Your task to perform on an android device: install app "Facebook Messenger" Image 0: 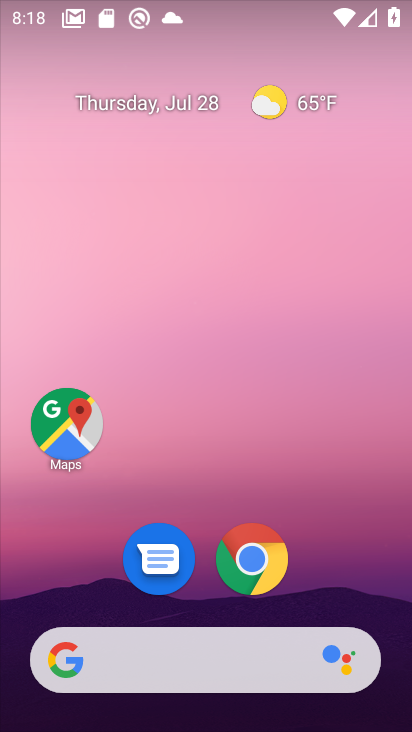
Step 0: drag from (204, 584) to (201, 264)
Your task to perform on an android device: install app "Facebook Messenger" Image 1: 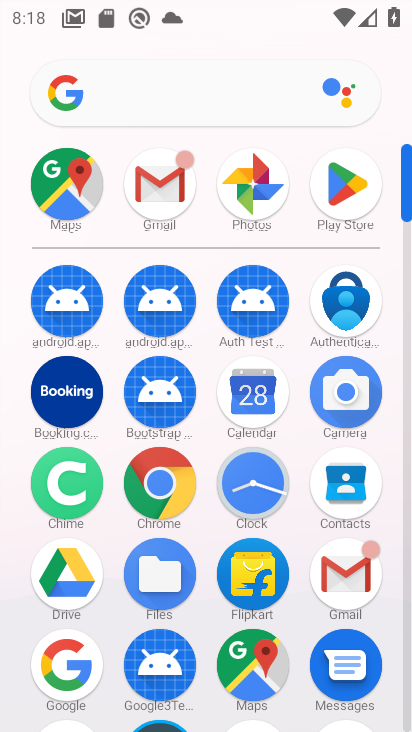
Step 1: click (346, 184)
Your task to perform on an android device: install app "Facebook Messenger" Image 2: 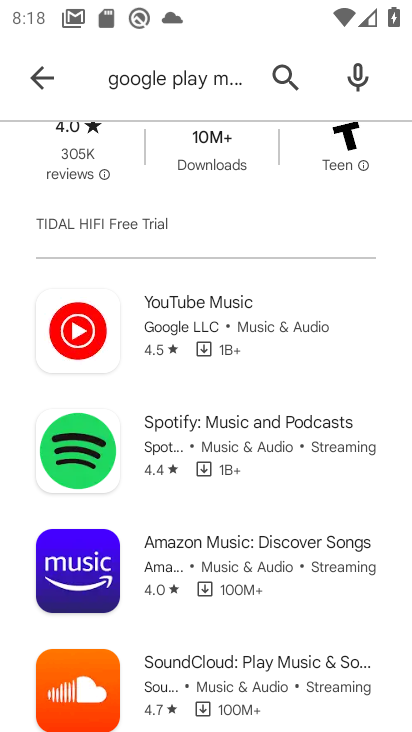
Step 2: click (173, 86)
Your task to perform on an android device: install app "Facebook Messenger" Image 3: 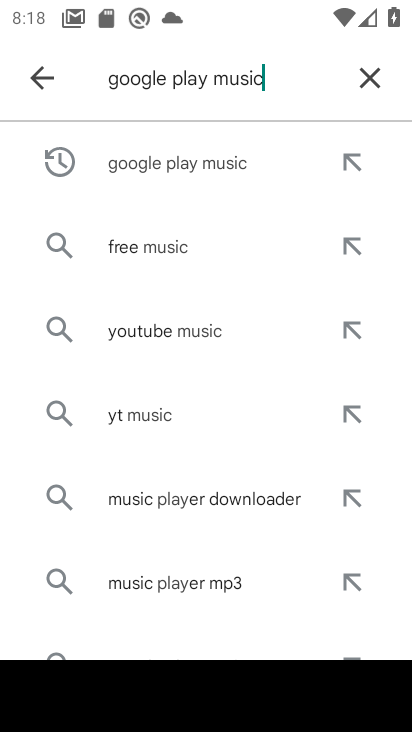
Step 3: click (367, 78)
Your task to perform on an android device: install app "Facebook Messenger" Image 4: 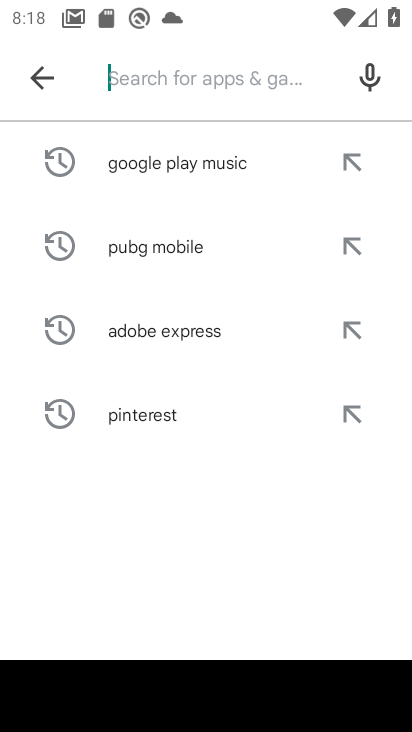
Step 4: type "facebook messenger"
Your task to perform on an android device: install app "Facebook Messenger" Image 5: 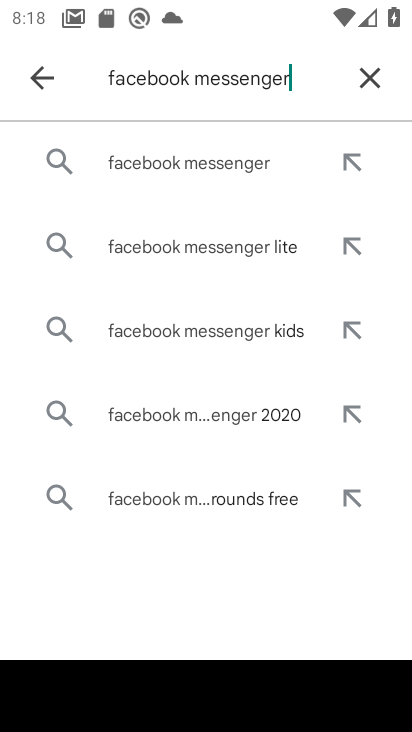
Step 5: click (243, 164)
Your task to perform on an android device: install app "Facebook Messenger" Image 6: 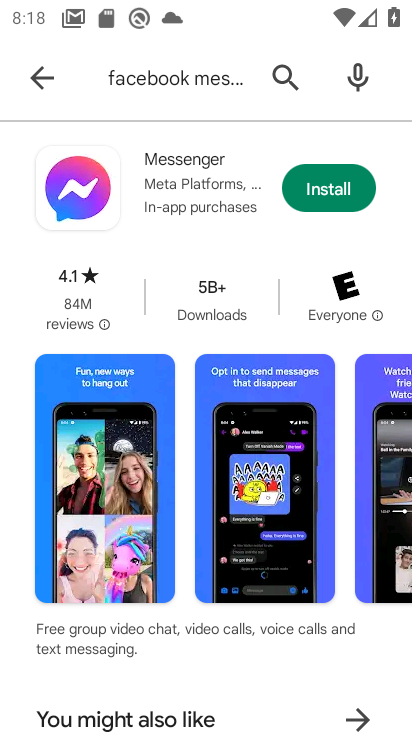
Step 6: click (326, 191)
Your task to perform on an android device: install app "Facebook Messenger" Image 7: 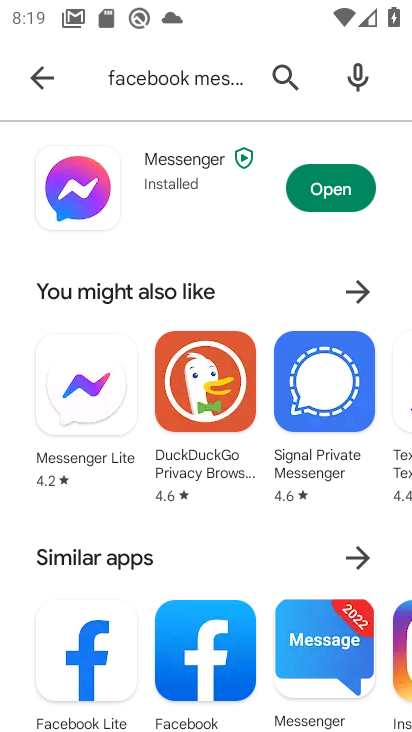
Step 7: task complete